Your task to perform on an android device: toggle improve location accuracy Image 0: 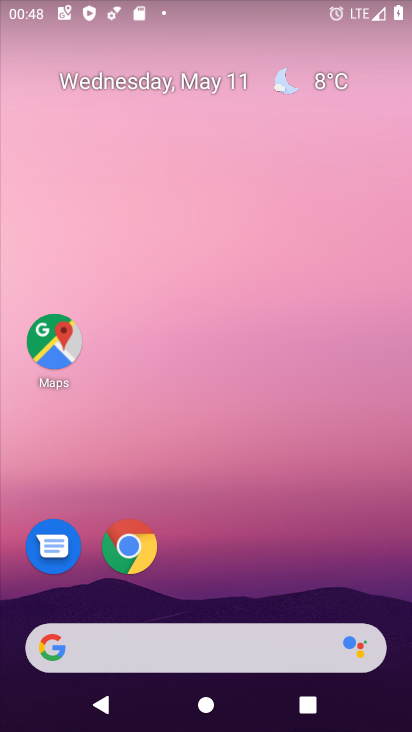
Step 0: drag from (195, 660) to (372, 115)
Your task to perform on an android device: toggle improve location accuracy Image 1: 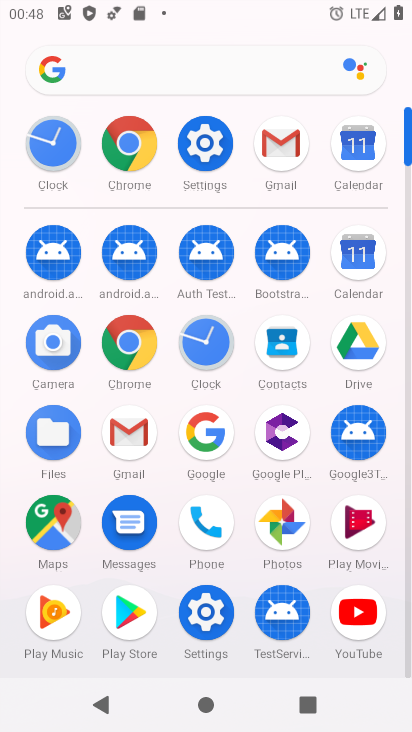
Step 1: click (197, 159)
Your task to perform on an android device: toggle improve location accuracy Image 2: 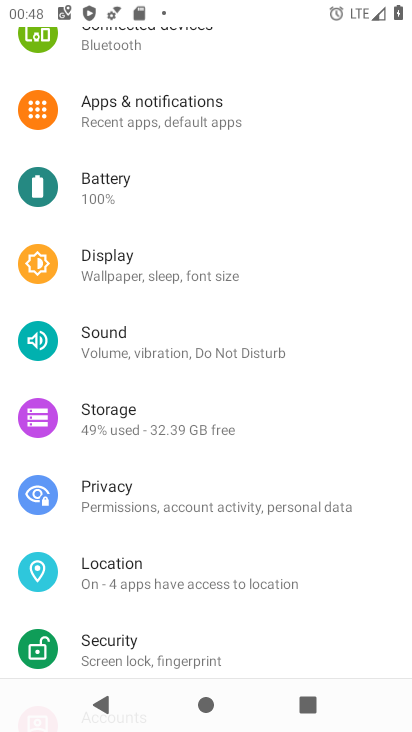
Step 2: click (108, 582)
Your task to perform on an android device: toggle improve location accuracy Image 3: 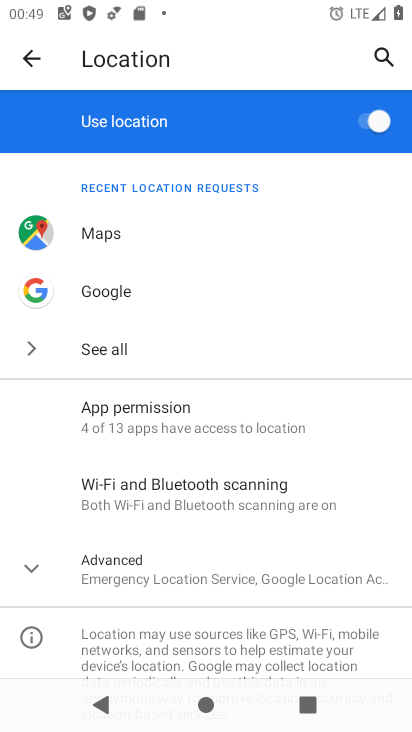
Step 3: drag from (174, 603) to (282, 460)
Your task to perform on an android device: toggle improve location accuracy Image 4: 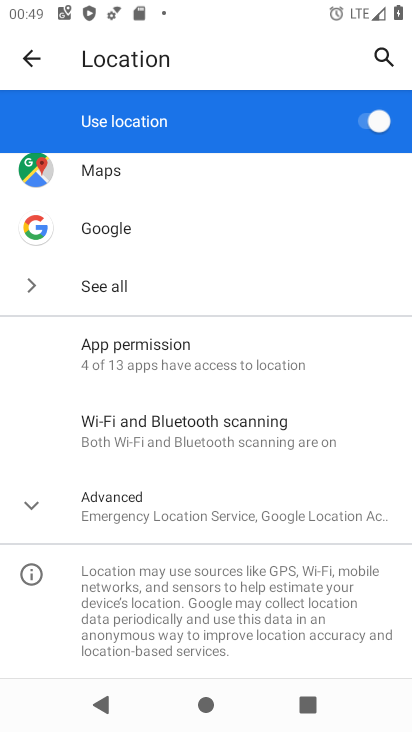
Step 4: click (134, 520)
Your task to perform on an android device: toggle improve location accuracy Image 5: 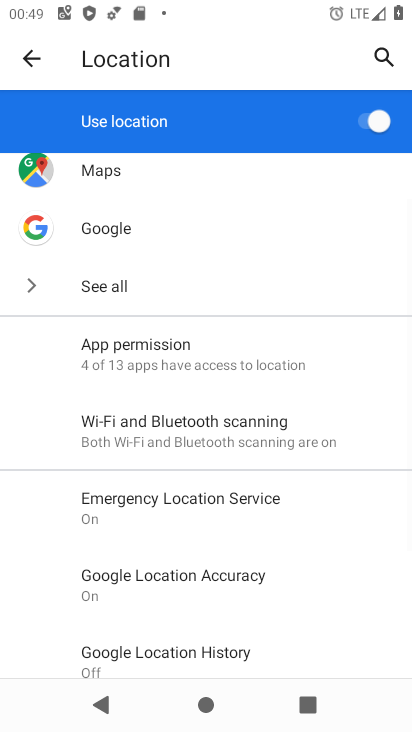
Step 5: click (122, 575)
Your task to perform on an android device: toggle improve location accuracy Image 6: 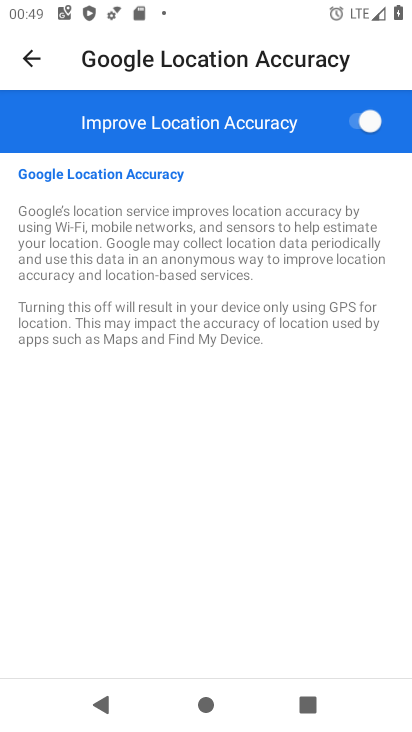
Step 6: click (353, 123)
Your task to perform on an android device: toggle improve location accuracy Image 7: 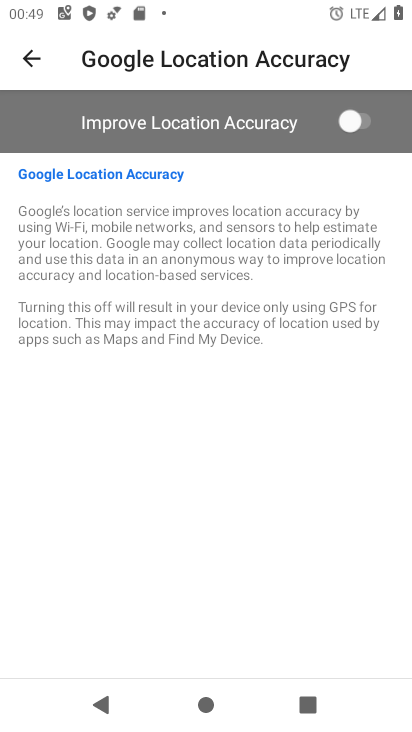
Step 7: task complete